Your task to perform on an android device: Open Wikipedia Image 0: 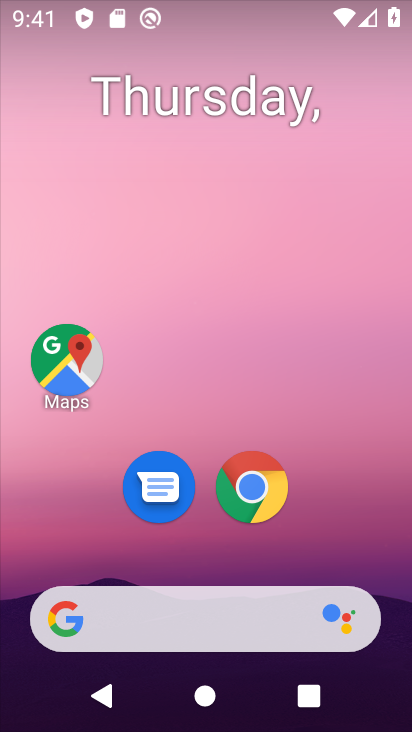
Step 0: click (265, 501)
Your task to perform on an android device: Open Wikipedia Image 1: 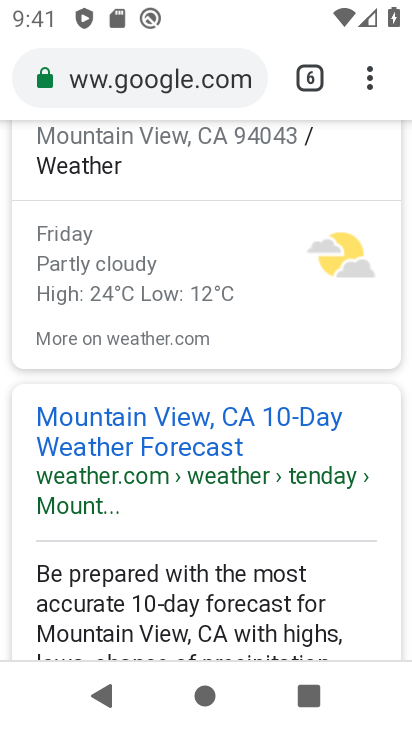
Step 1: click (313, 85)
Your task to perform on an android device: Open Wikipedia Image 2: 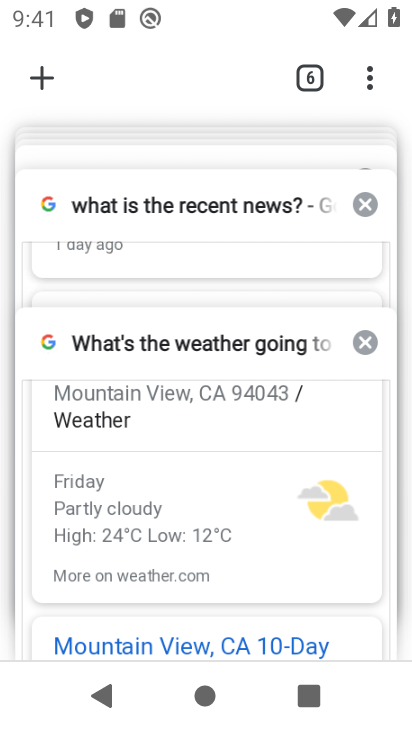
Step 2: drag from (198, 177) to (165, 382)
Your task to perform on an android device: Open Wikipedia Image 3: 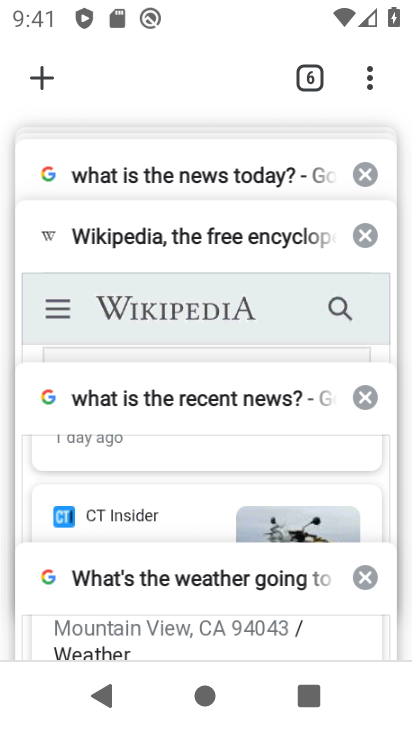
Step 3: click (176, 282)
Your task to perform on an android device: Open Wikipedia Image 4: 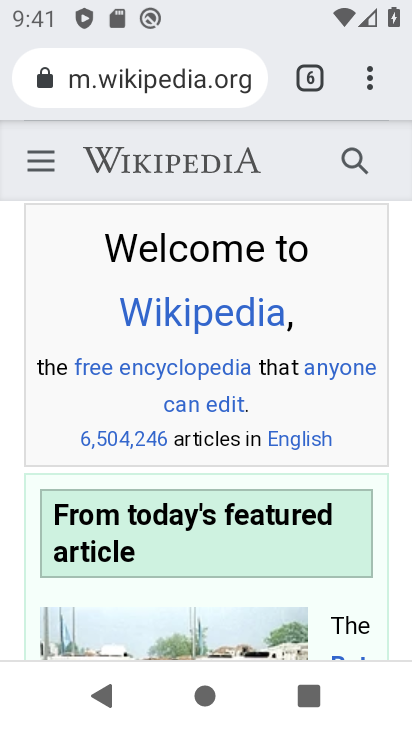
Step 4: task complete